Your task to perform on an android device: Open Chrome and go to the settings page Image 0: 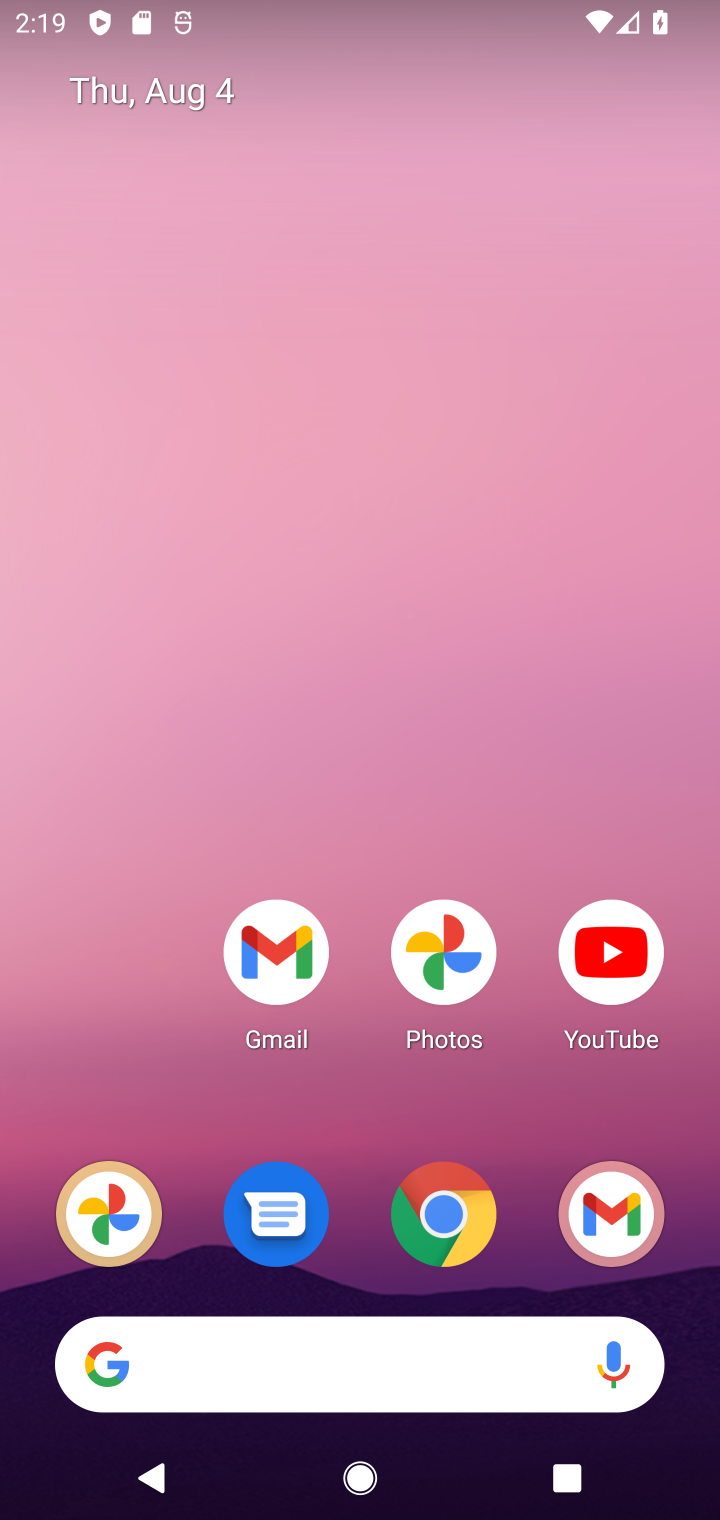
Step 0: drag from (107, 1044) to (258, 60)
Your task to perform on an android device: Open Chrome and go to the settings page Image 1: 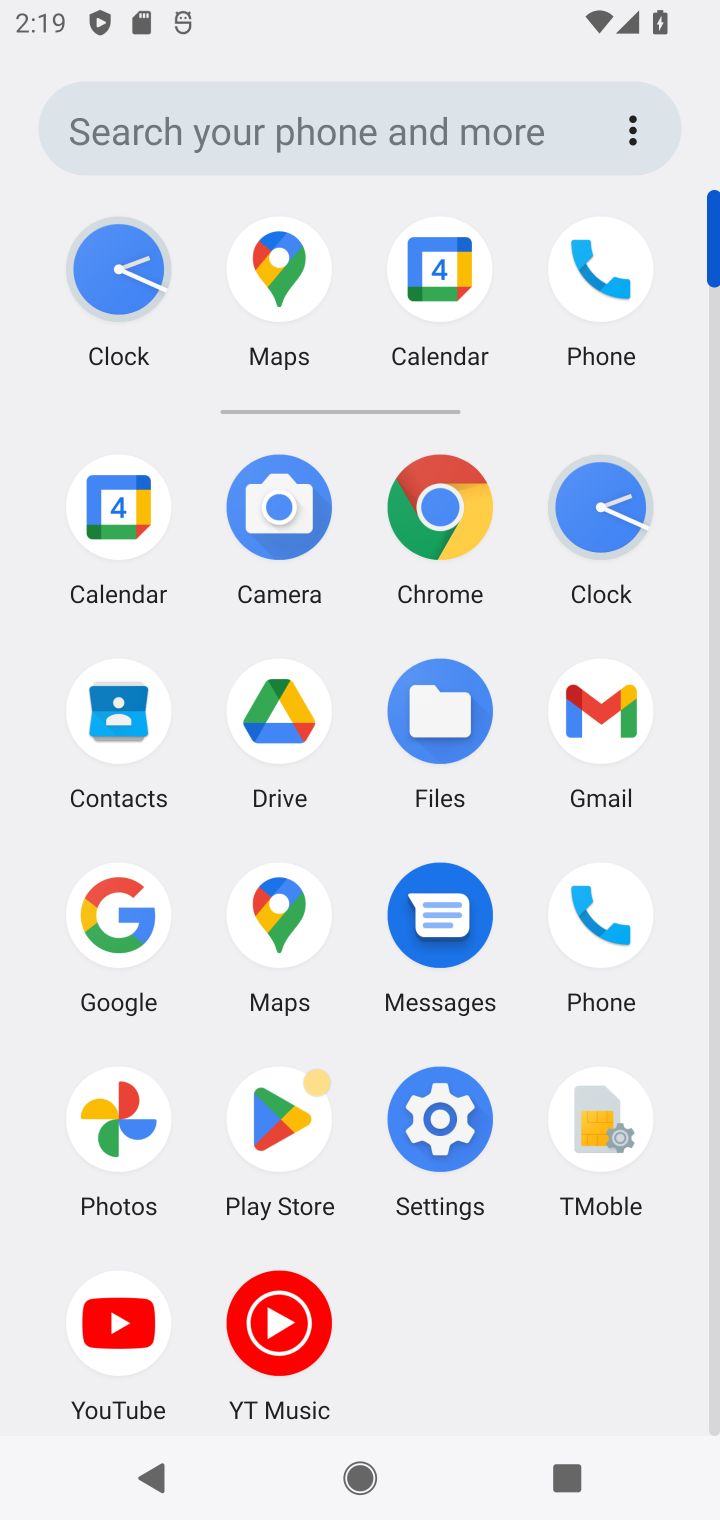
Step 1: click (429, 482)
Your task to perform on an android device: Open Chrome and go to the settings page Image 2: 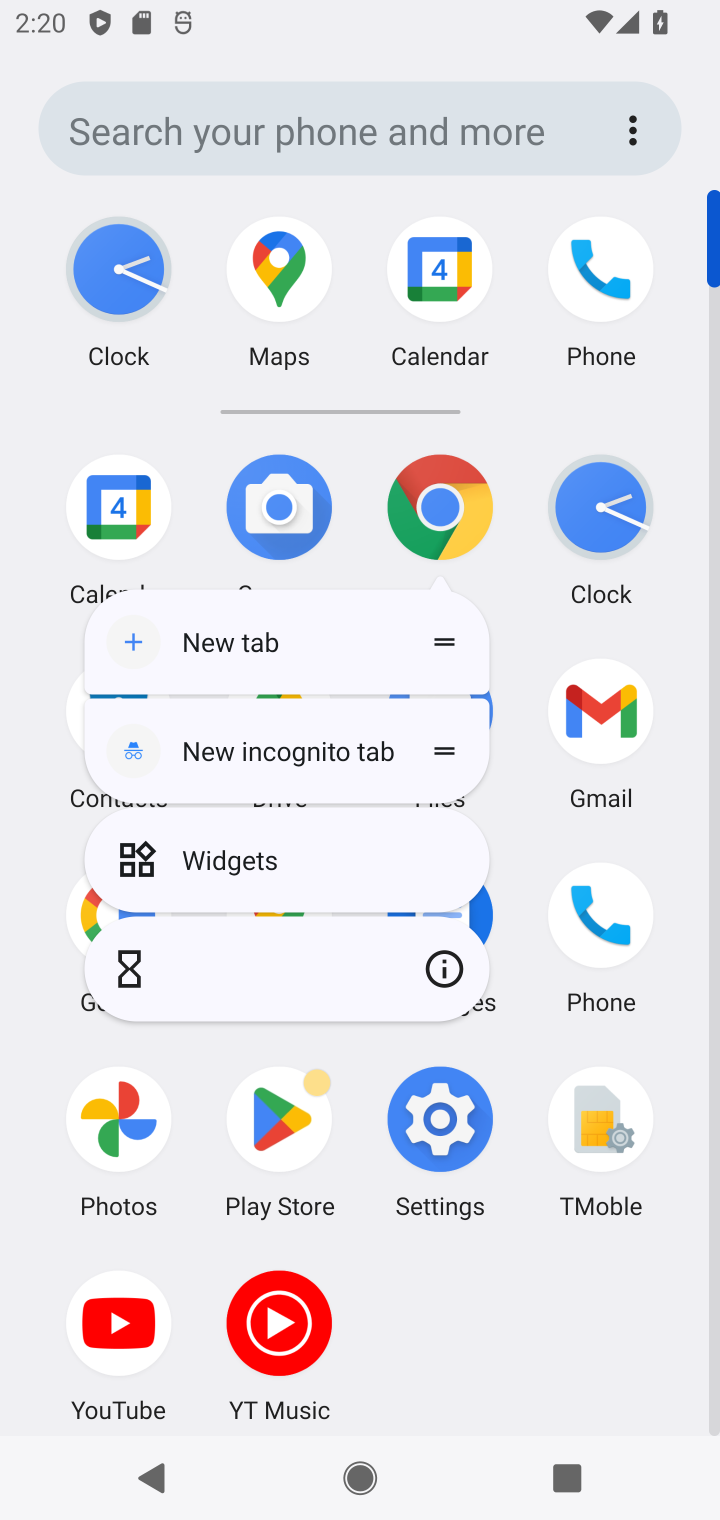
Step 2: click (424, 487)
Your task to perform on an android device: Open Chrome and go to the settings page Image 3: 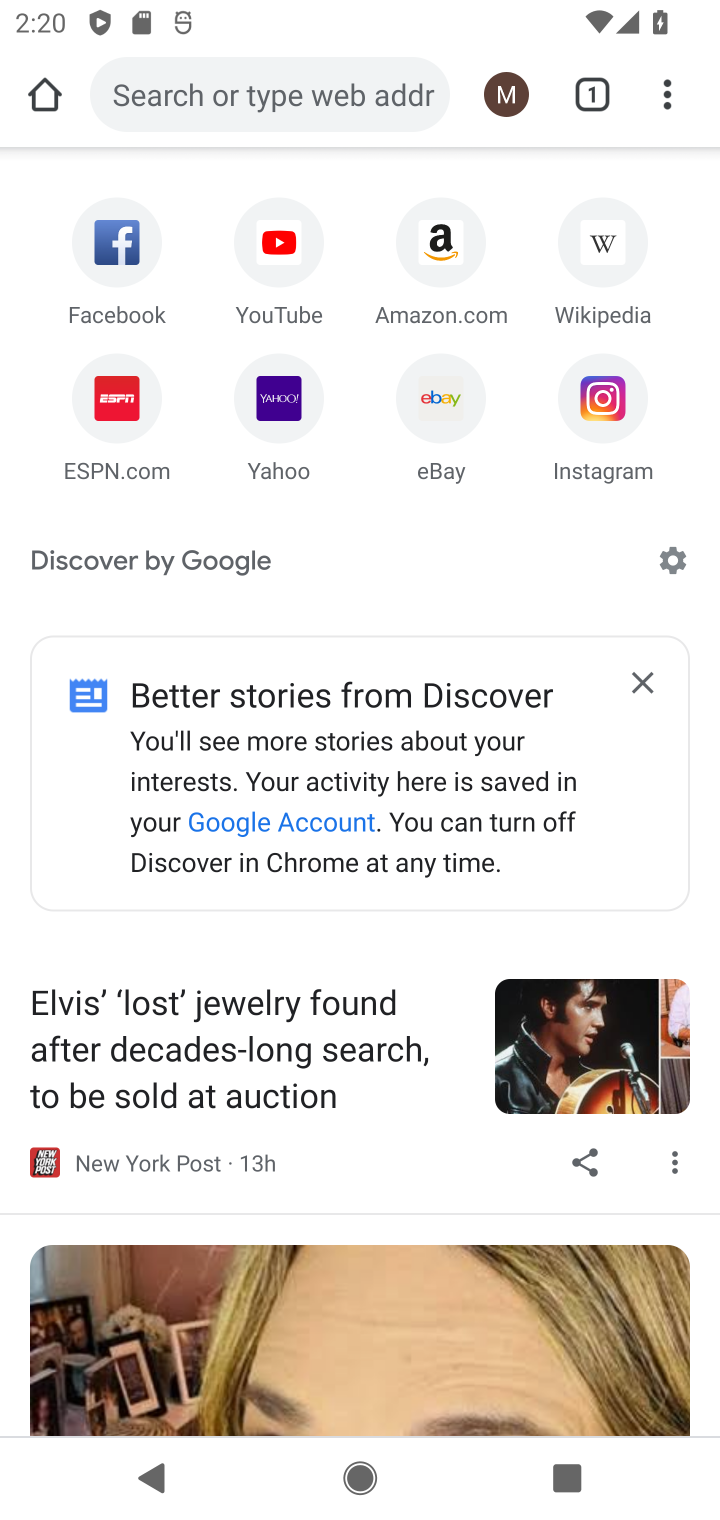
Step 3: click (681, 90)
Your task to perform on an android device: Open Chrome and go to the settings page Image 4: 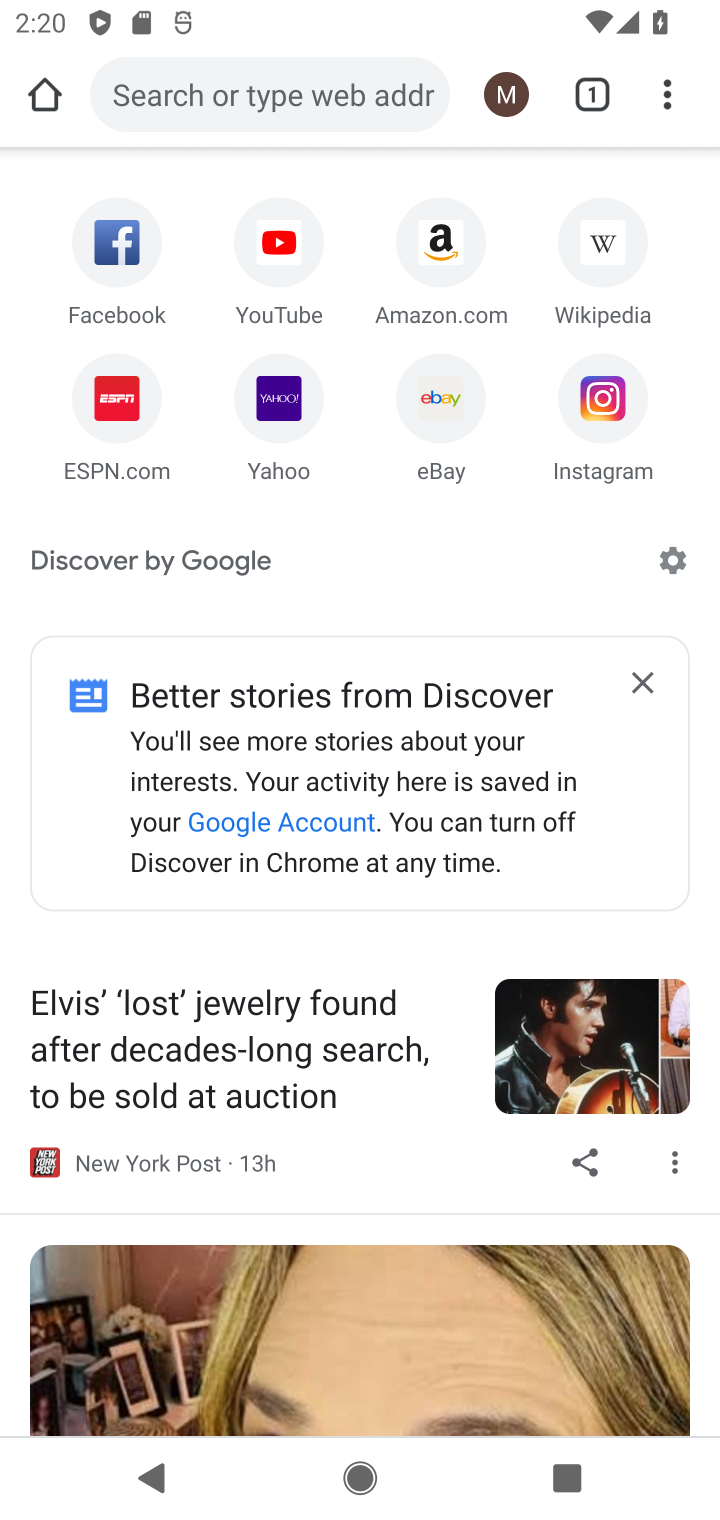
Step 4: click (660, 86)
Your task to perform on an android device: Open Chrome and go to the settings page Image 5: 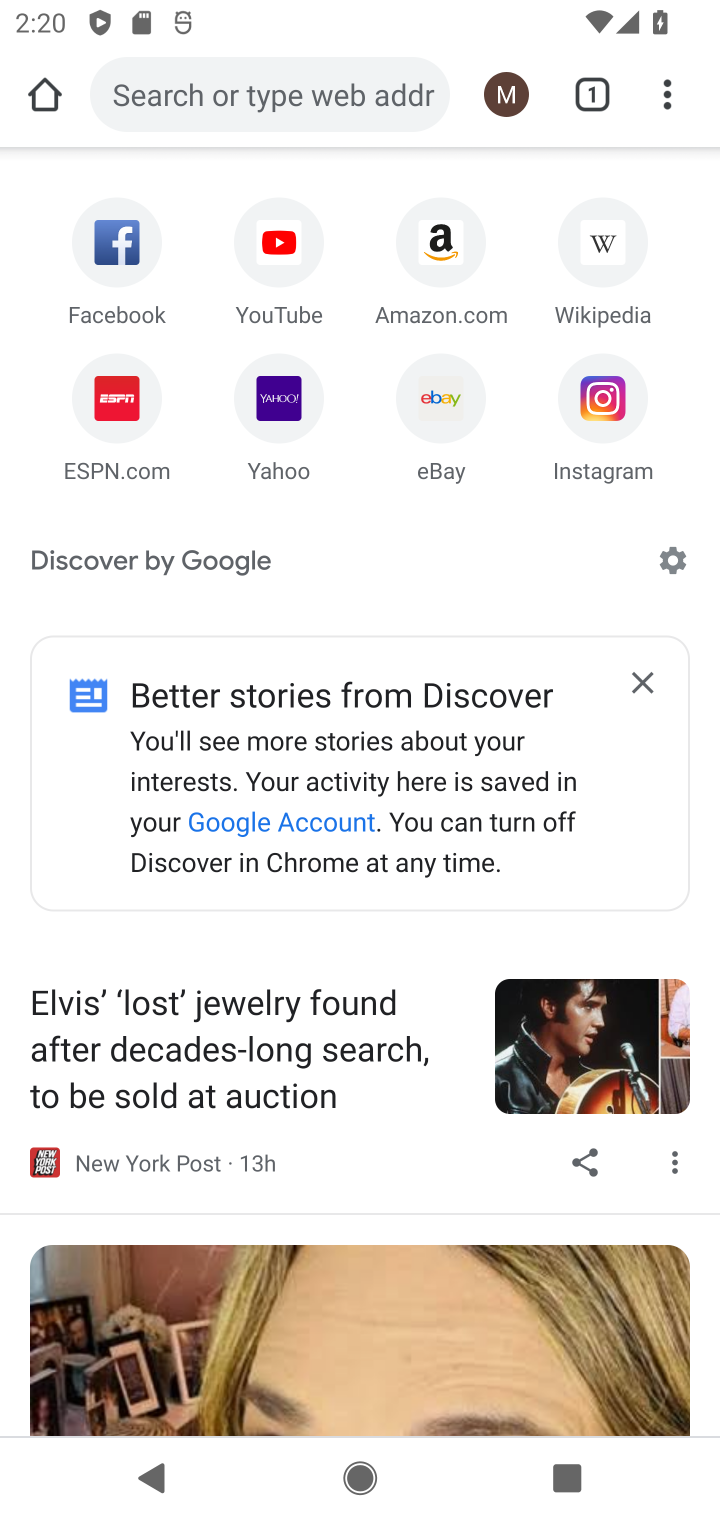
Step 5: click (660, 86)
Your task to perform on an android device: Open Chrome and go to the settings page Image 6: 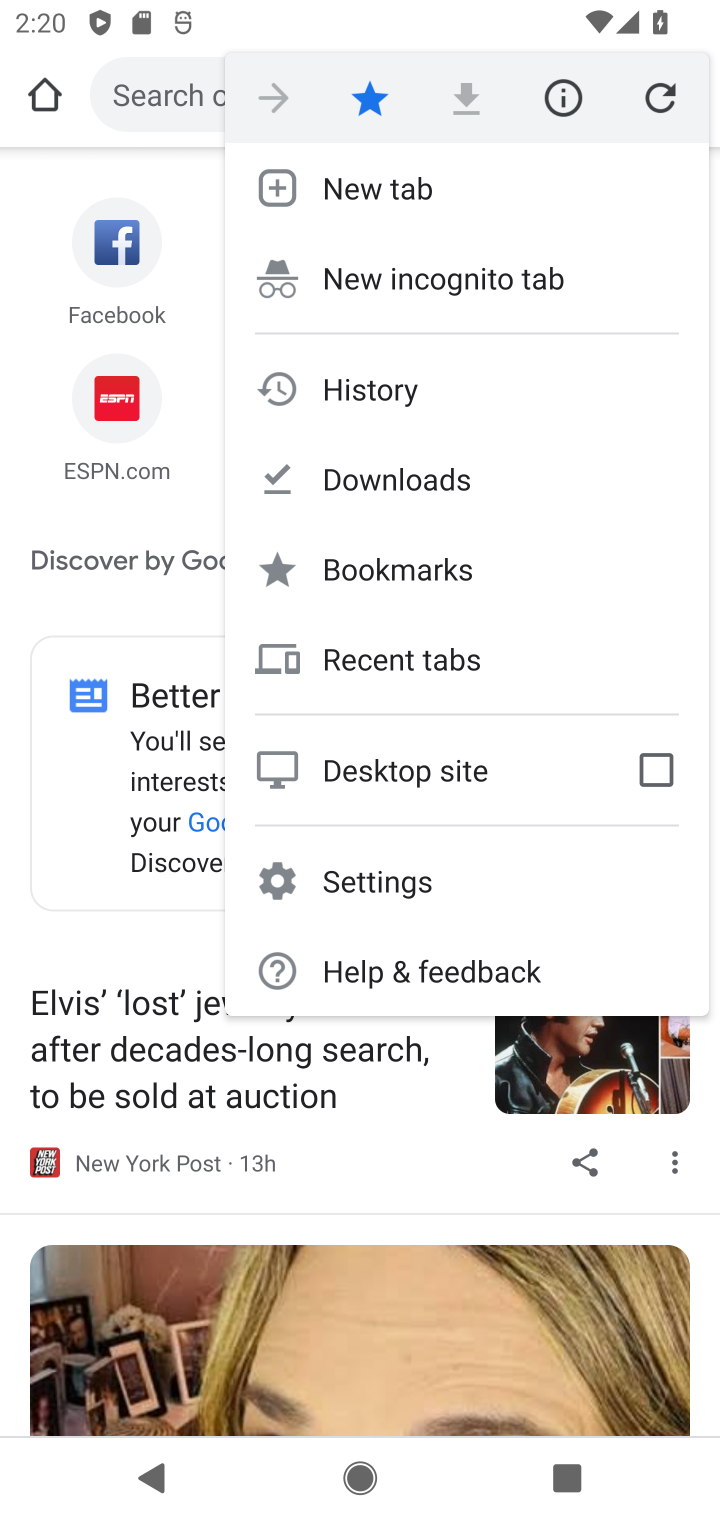
Step 6: click (349, 877)
Your task to perform on an android device: Open Chrome and go to the settings page Image 7: 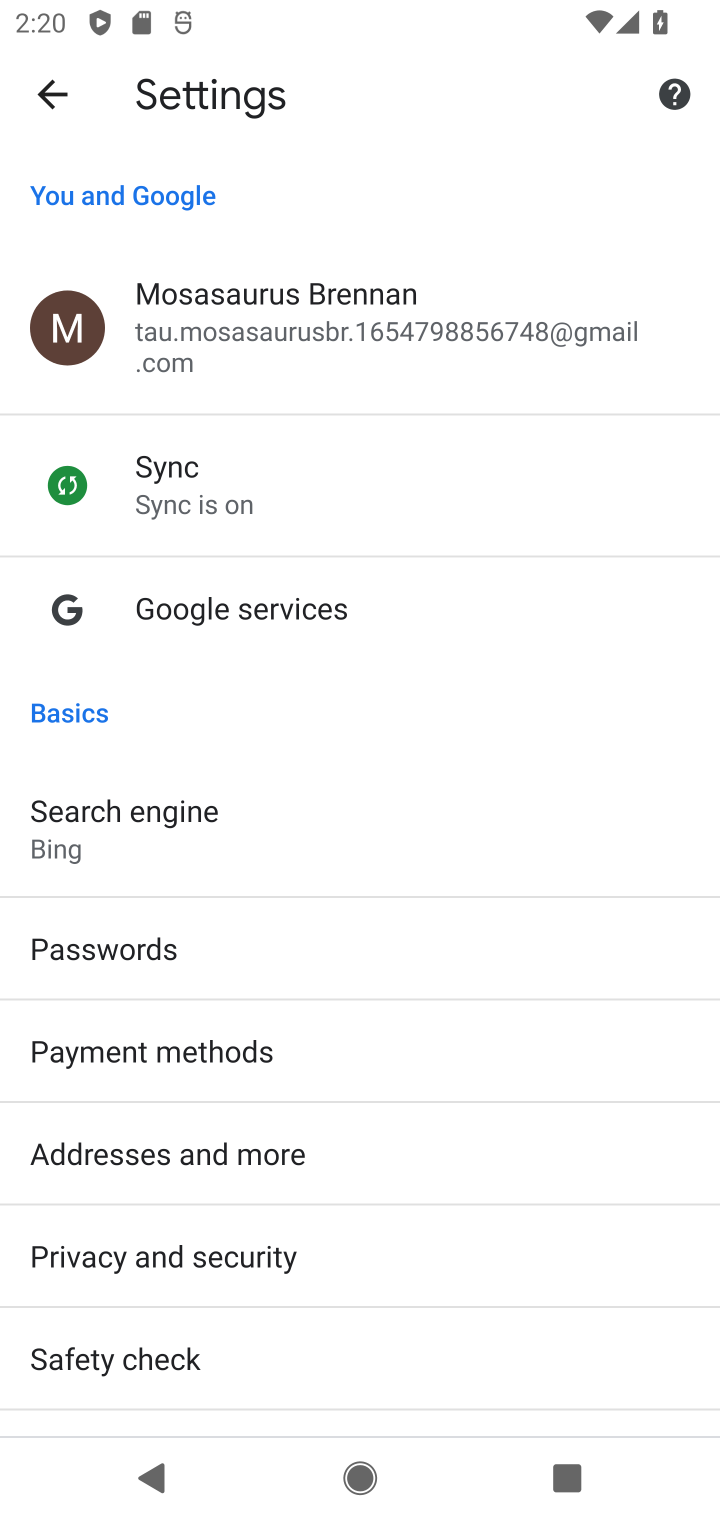
Step 7: task complete